Your task to perform on an android device: find photos in the google photos app Image 0: 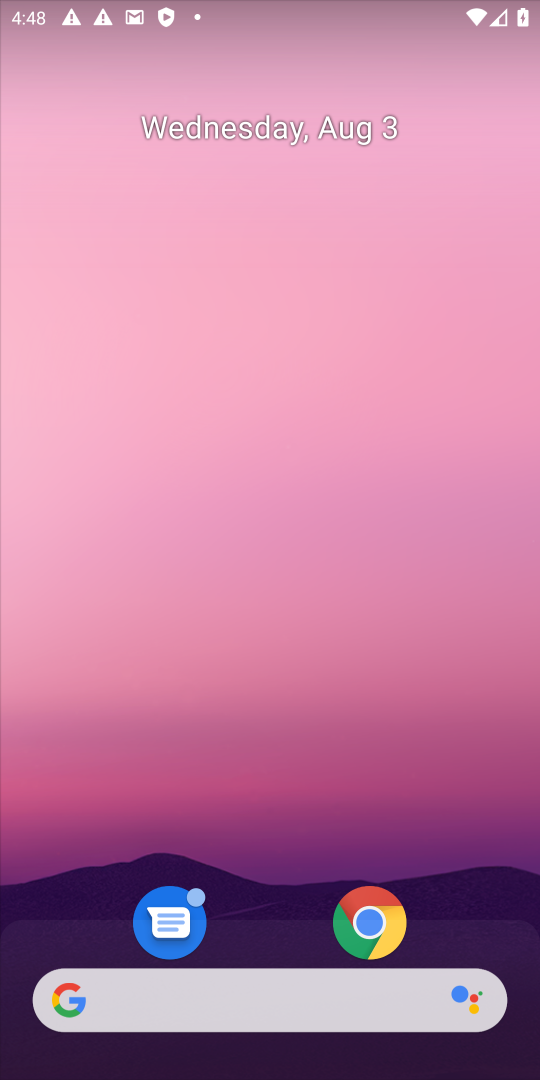
Step 0: drag from (510, 929) to (407, 165)
Your task to perform on an android device: find photos in the google photos app Image 1: 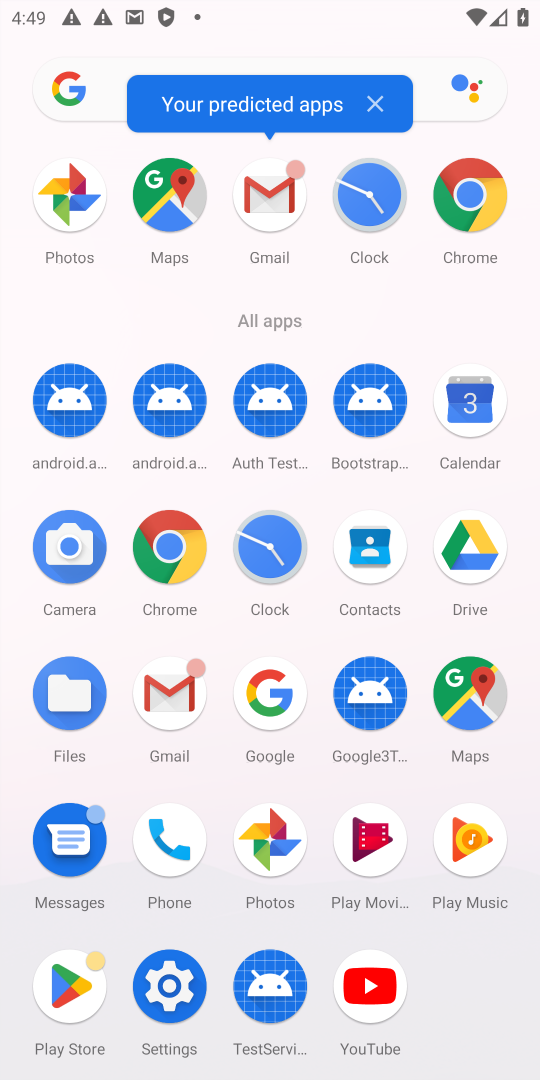
Step 1: click (64, 196)
Your task to perform on an android device: find photos in the google photos app Image 2: 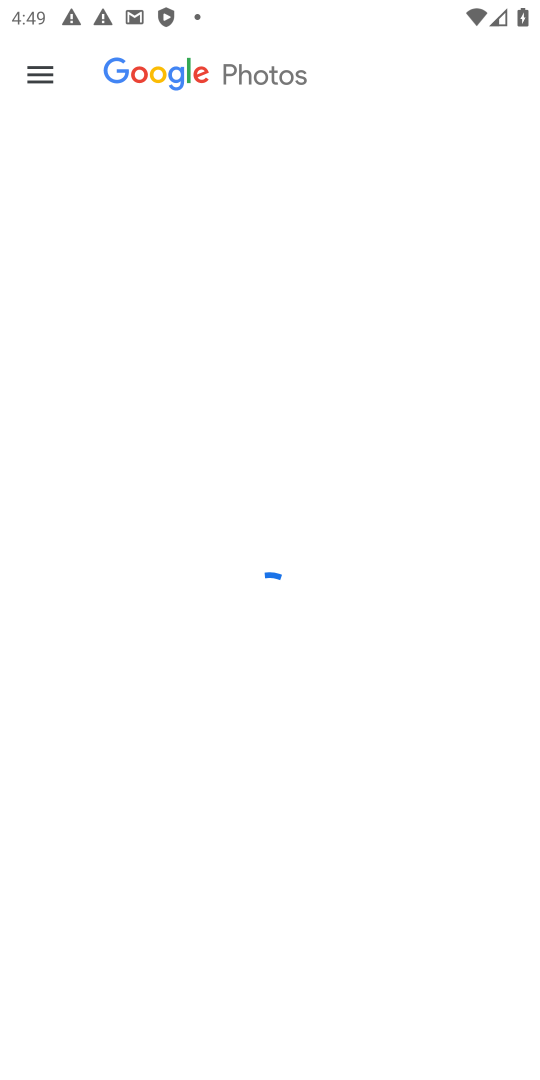
Step 2: click (121, 196)
Your task to perform on an android device: find photos in the google photos app Image 3: 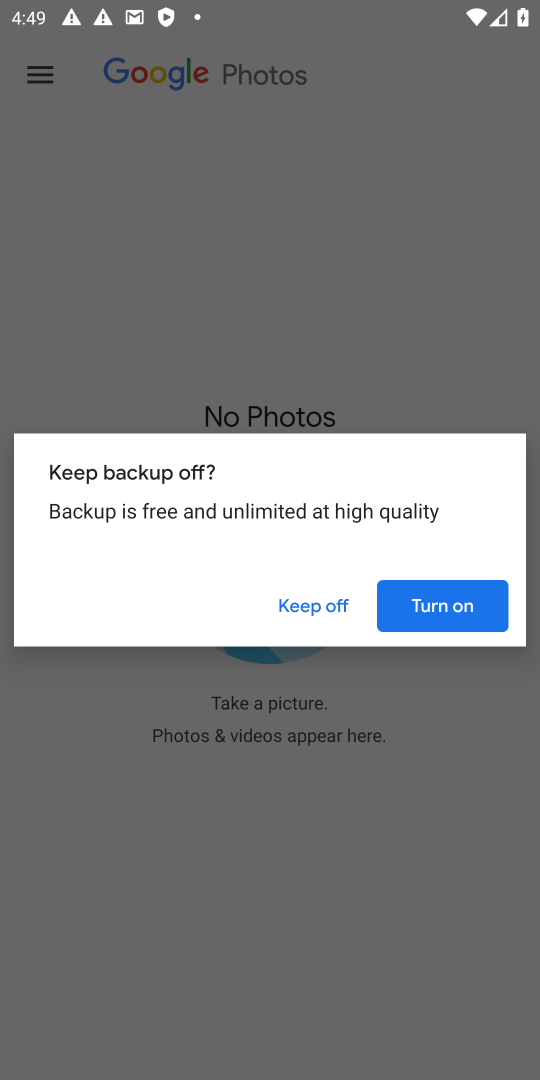
Step 3: click (473, 599)
Your task to perform on an android device: find photos in the google photos app Image 4: 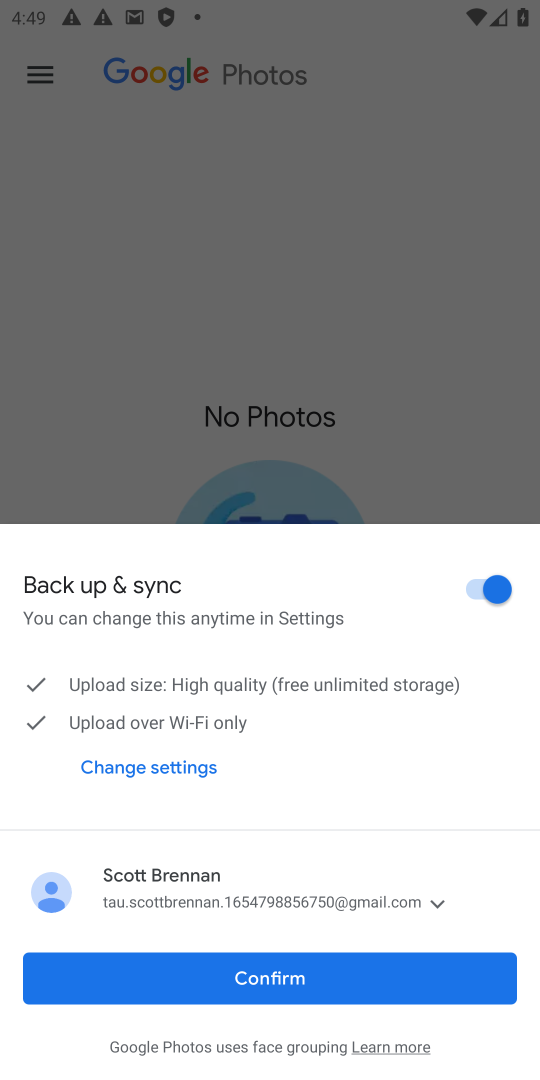
Step 4: click (358, 994)
Your task to perform on an android device: find photos in the google photos app Image 5: 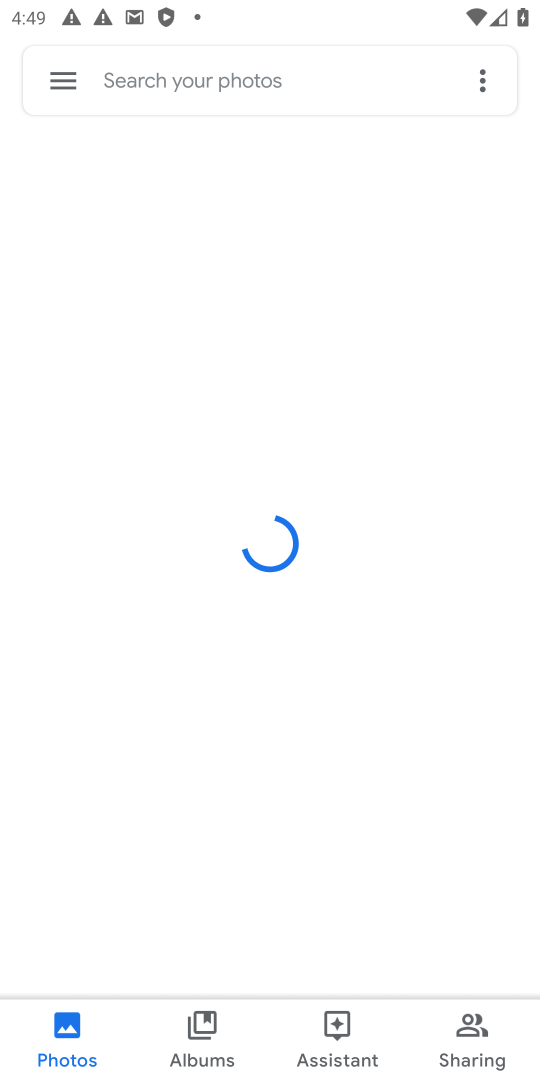
Step 5: task complete